Your task to perform on an android device: turn notification dots off Image 0: 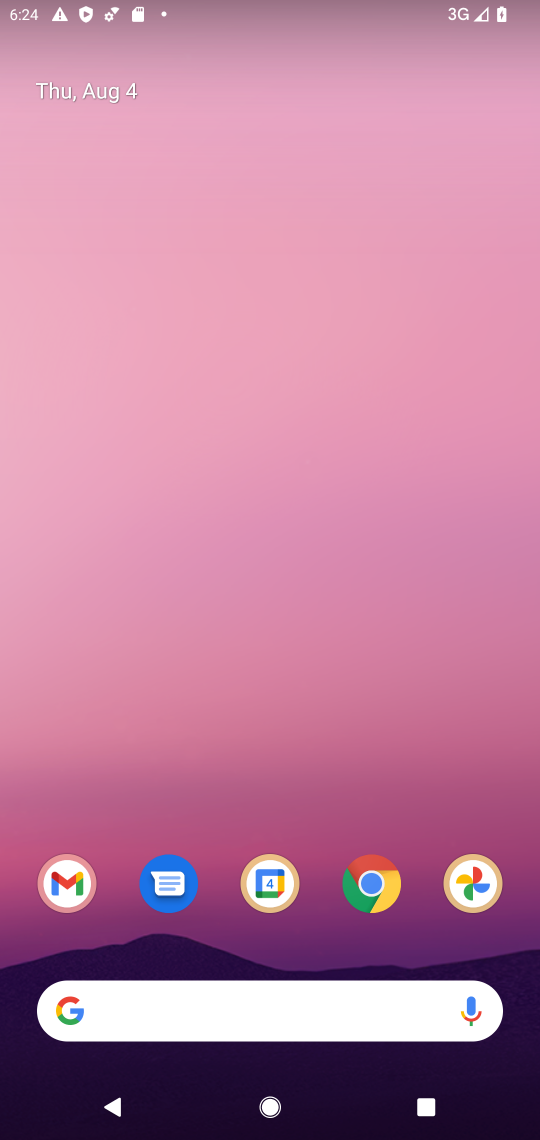
Step 0: drag from (377, 786) to (295, 168)
Your task to perform on an android device: turn notification dots off Image 1: 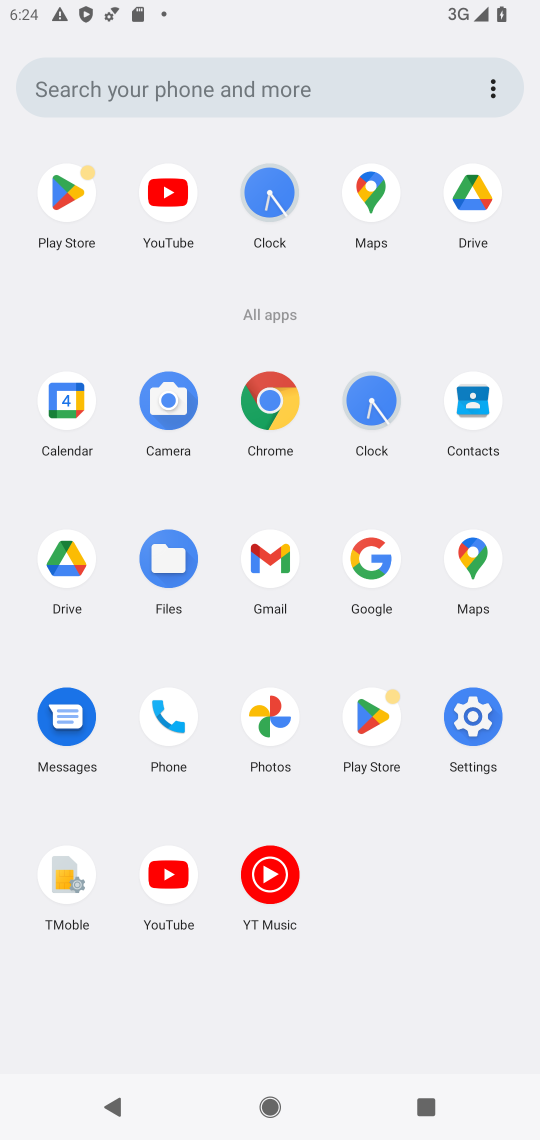
Step 1: click (468, 731)
Your task to perform on an android device: turn notification dots off Image 2: 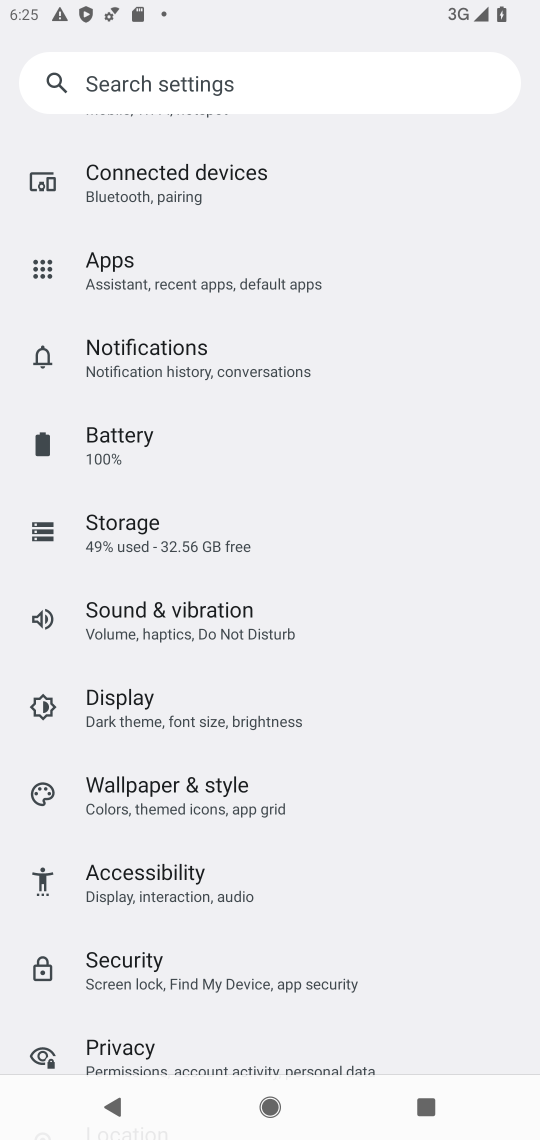
Step 2: click (208, 366)
Your task to perform on an android device: turn notification dots off Image 3: 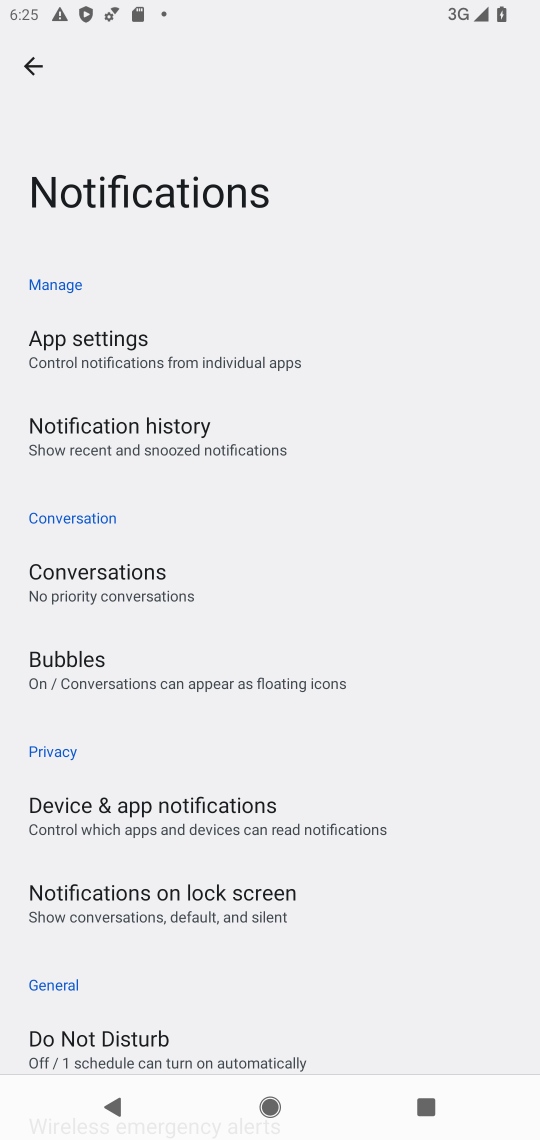
Step 3: drag from (226, 918) to (168, 556)
Your task to perform on an android device: turn notification dots off Image 4: 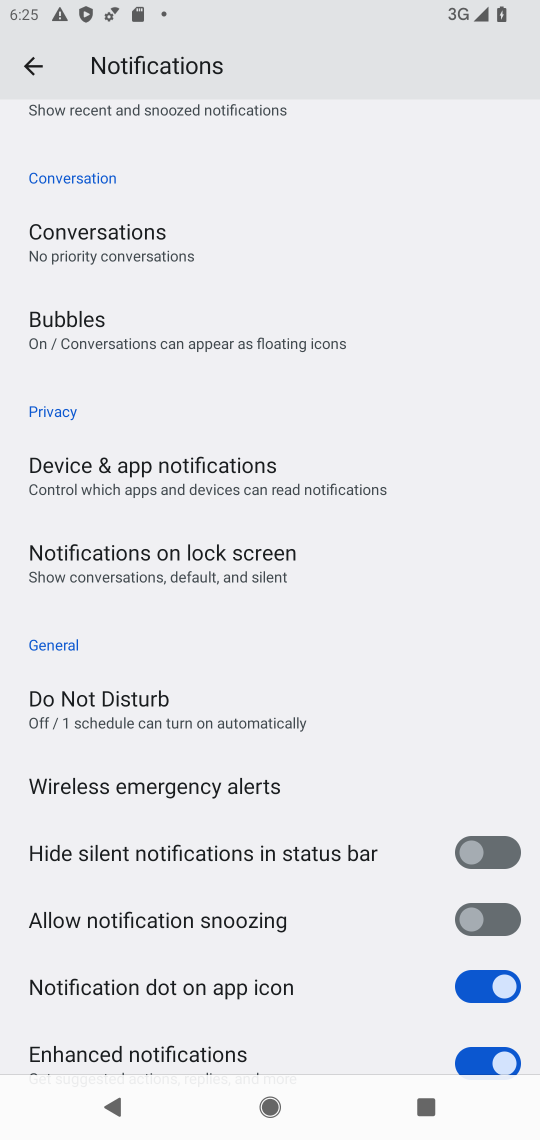
Step 4: drag from (320, 1006) to (324, 617)
Your task to perform on an android device: turn notification dots off Image 5: 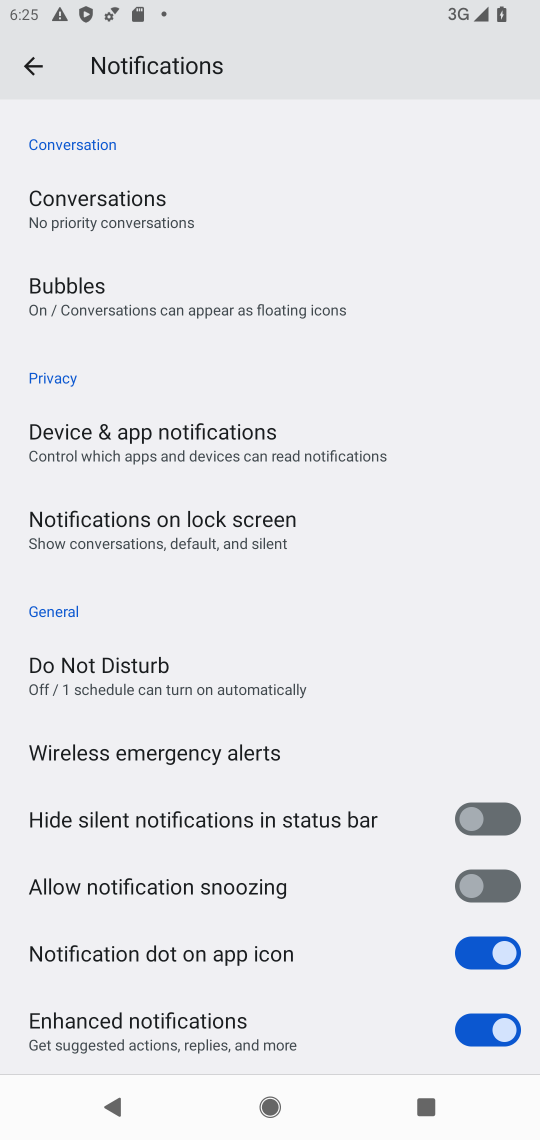
Step 5: click (476, 971)
Your task to perform on an android device: turn notification dots off Image 6: 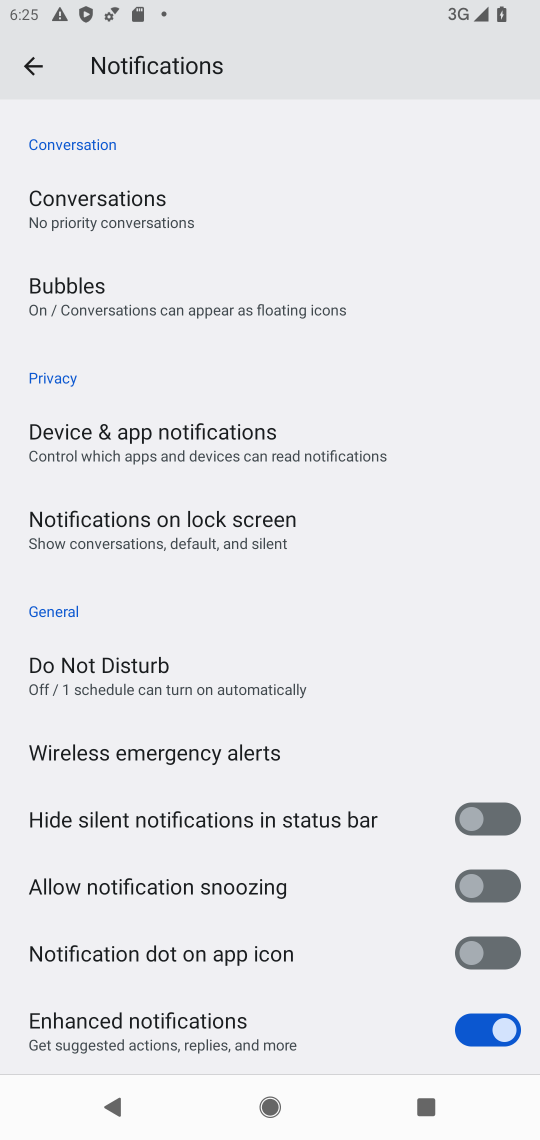
Step 6: task complete